Your task to perform on an android device: Find coffee shops on Maps Image 0: 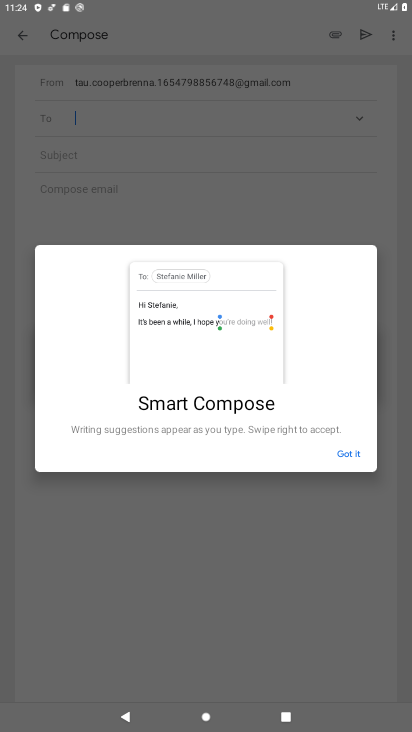
Step 0: press home button
Your task to perform on an android device: Find coffee shops on Maps Image 1: 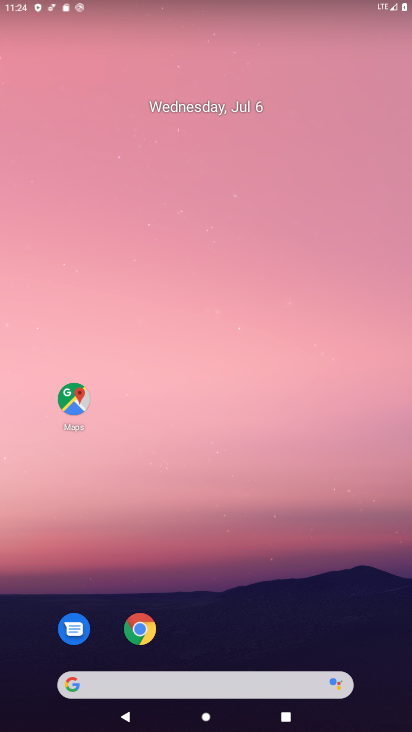
Step 1: drag from (190, 622) to (190, 267)
Your task to perform on an android device: Find coffee shops on Maps Image 2: 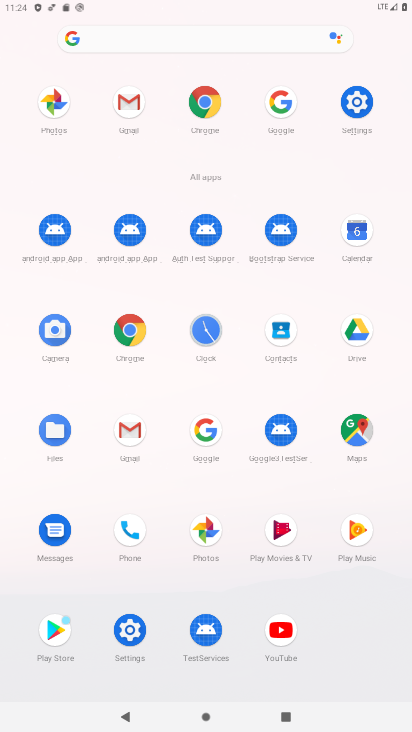
Step 2: click (343, 431)
Your task to perform on an android device: Find coffee shops on Maps Image 3: 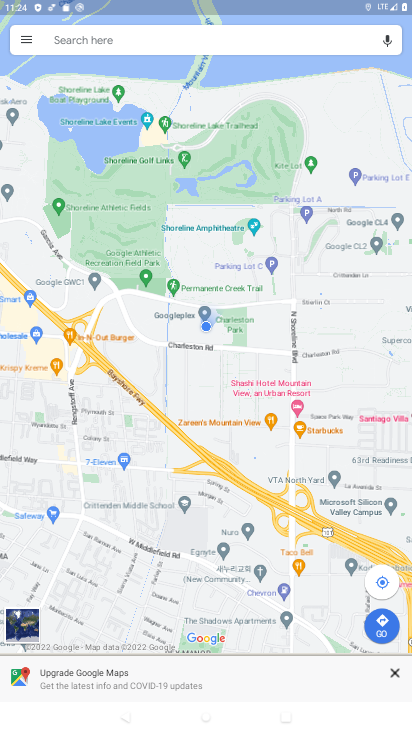
Step 3: click (169, 39)
Your task to perform on an android device: Find coffee shops on Maps Image 4: 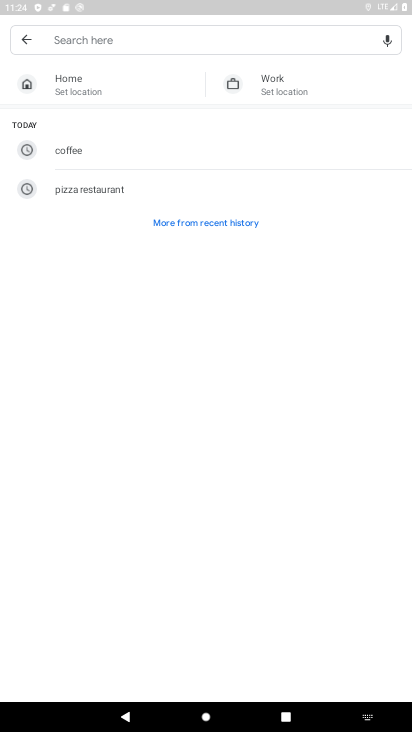
Step 4: type "coffee shops"
Your task to perform on an android device: Find coffee shops on Maps Image 5: 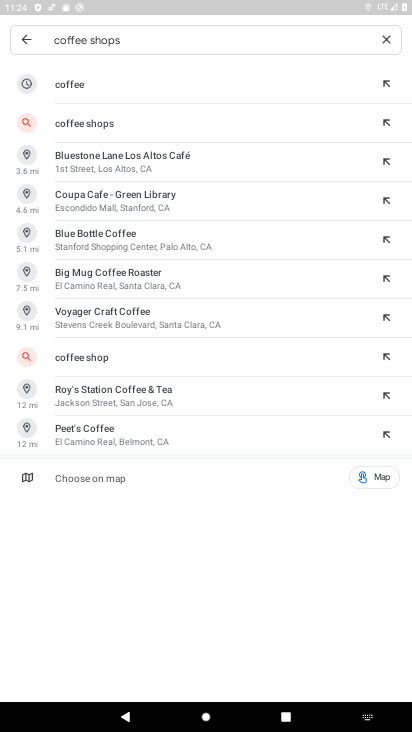
Step 5: click (158, 114)
Your task to perform on an android device: Find coffee shops on Maps Image 6: 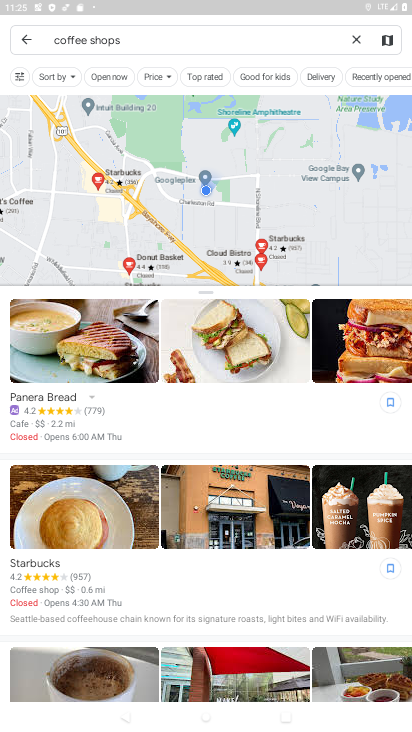
Step 6: task complete